Your task to perform on an android device: Open the Play Movies app and select the watchlist tab. Image 0: 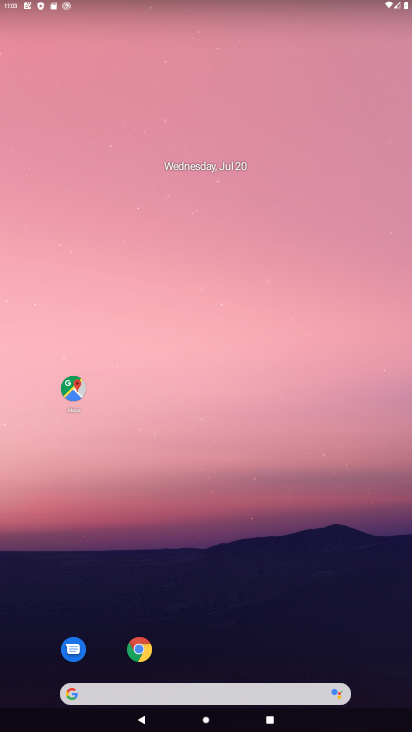
Step 0: drag from (263, 668) to (411, 593)
Your task to perform on an android device: Open the Play Movies app and select the watchlist tab. Image 1: 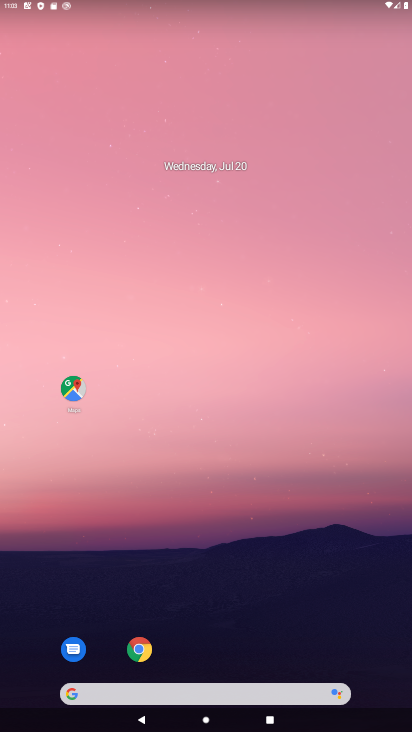
Step 1: drag from (283, 655) to (0, 101)
Your task to perform on an android device: Open the Play Movies app and select the watchlist tab. Image 2: 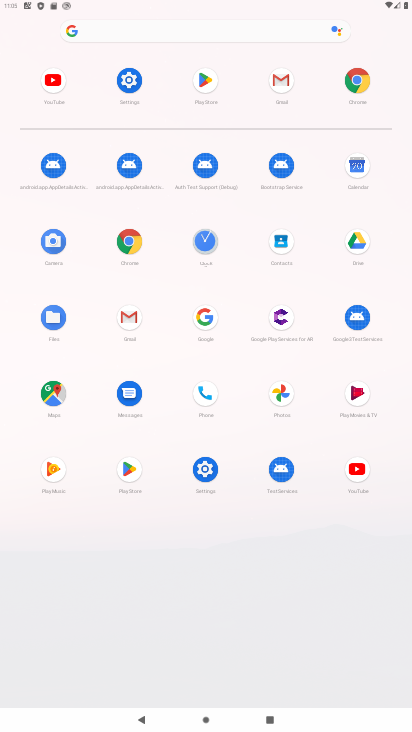
Step 2: click (343, 493)
Your task to perform on an android device: Open the Play Movies app and select the watchlist tab. Image 3: 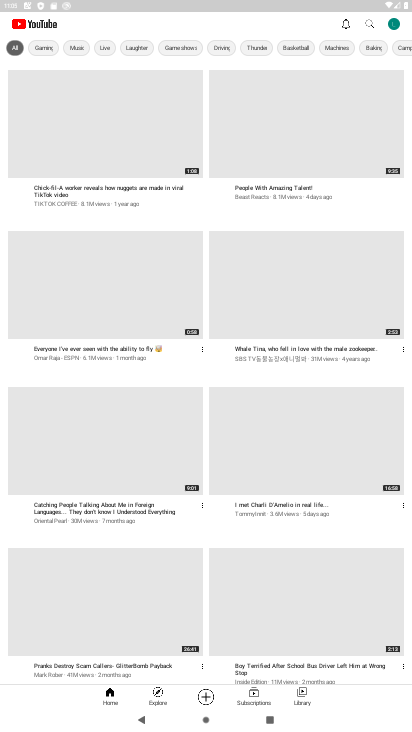
Step 3: task complete